Your task to perform on an android device: toggle wifi Image 0: 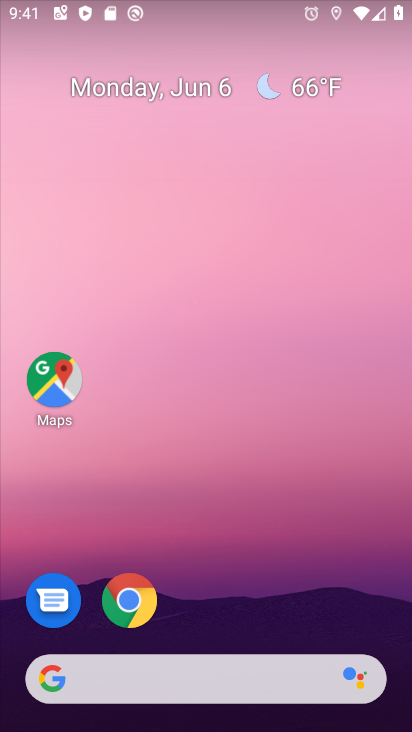
Step 0: drag from (174, 12) to (148, 426)
Your task to perform on an android device: toggle wifi Image 1: 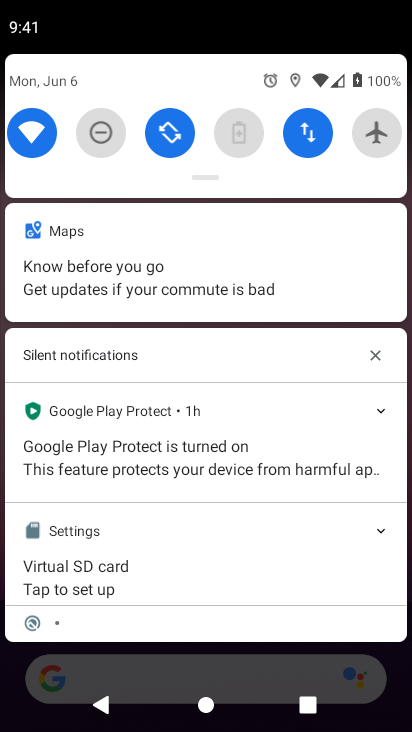
Step 1: click (35, 135)
Your task to perform on an android device: toggle wifi Image 2: 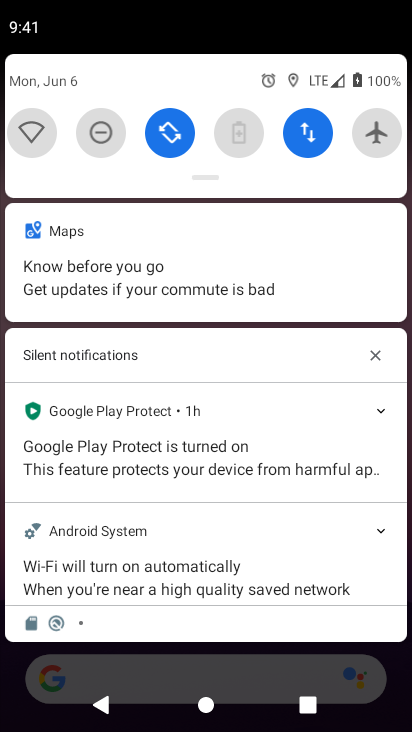
Step 2: task complete